Your task to perform on an android device: Open calendar and show me the third week of next month Image 0: 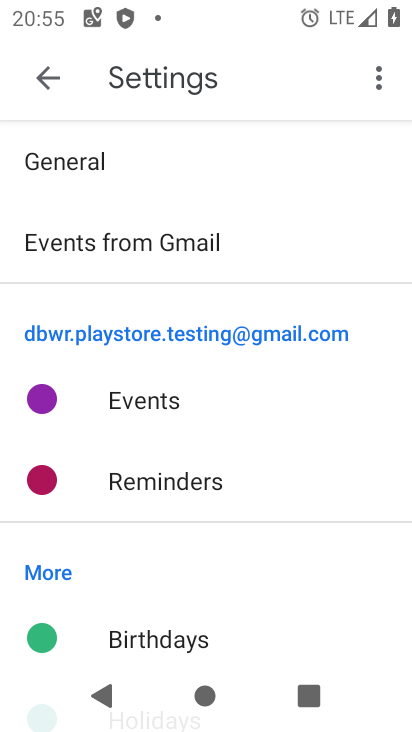
Step 0: press home button
Your task to perform on an android device: Open calendar and show me the third week of next month Image 1: 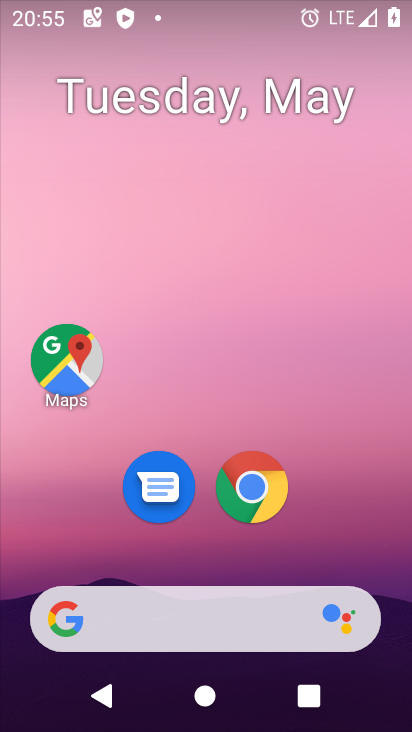
Step 1: drag from (326, 525) to (199, 117)
Your task to perform on an android device: Open calendar and show me the third week of next month Image 2: 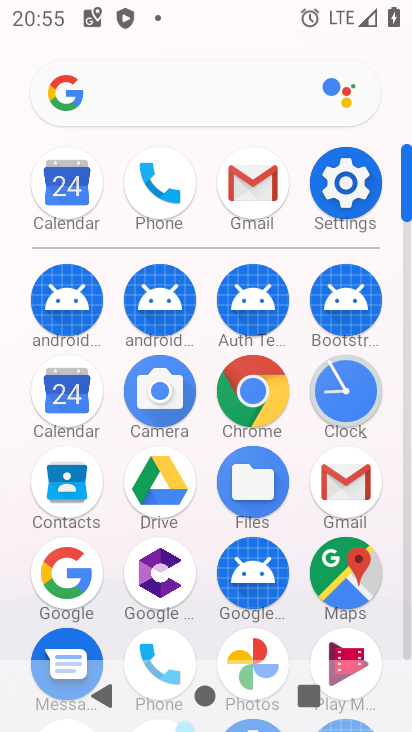
Step 2: click (55, 401)
Your task to perform on an android device: Open calendar and show me the third week of next month Image 3: 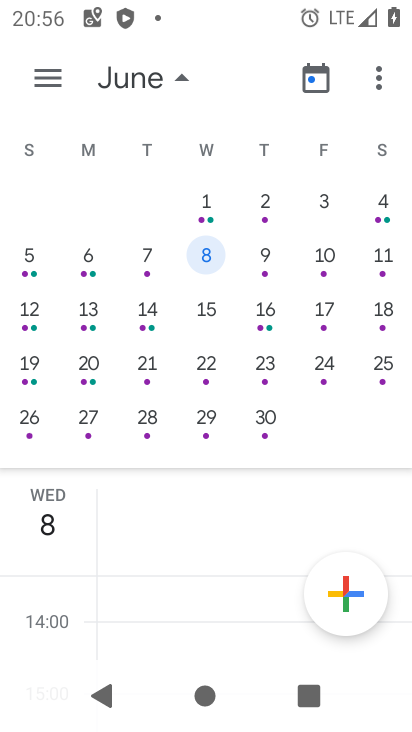
Step 3: click (199, 305)
Your task to perform on an android device: Open calendar and show me the third week of next month Image 4: 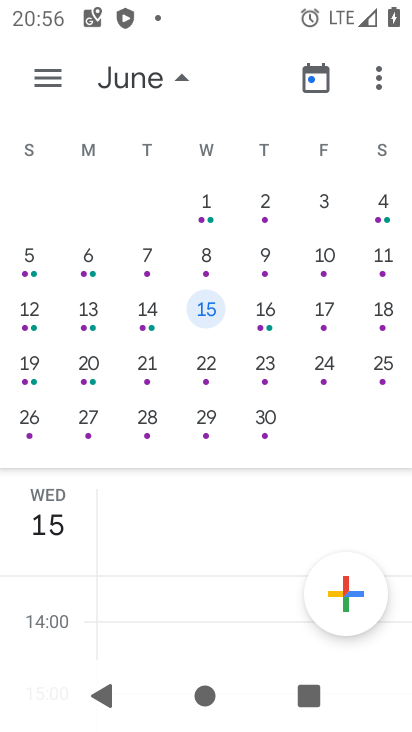
Step 4: click (57, 83)
Your task to perform on an android device: Open calendar and show me the third week of next month Image 5: 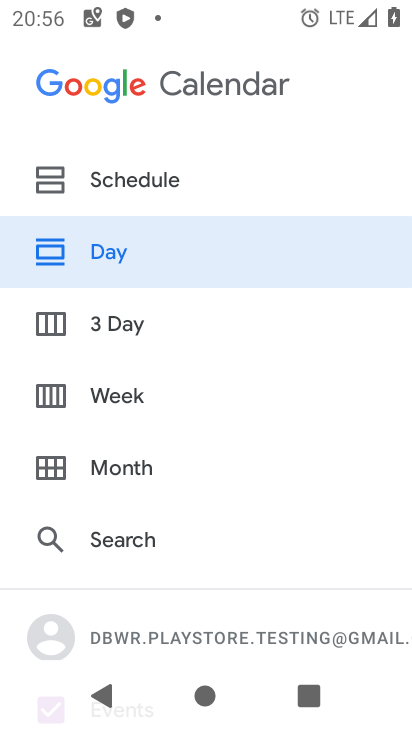
Step 5: click (114, 396)
Your task to perform on an android device: Open calendar and show me the third week of next month Image 6: 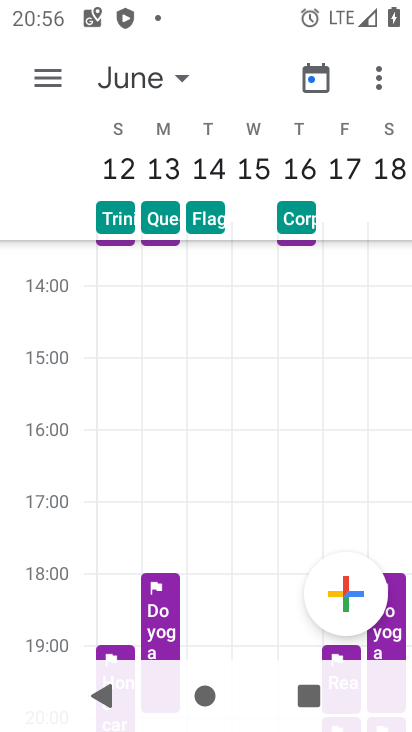
Step 6: click (183, 76)
Your task to perform on an android device: Open calendar and show me the third week of next month Image 7: 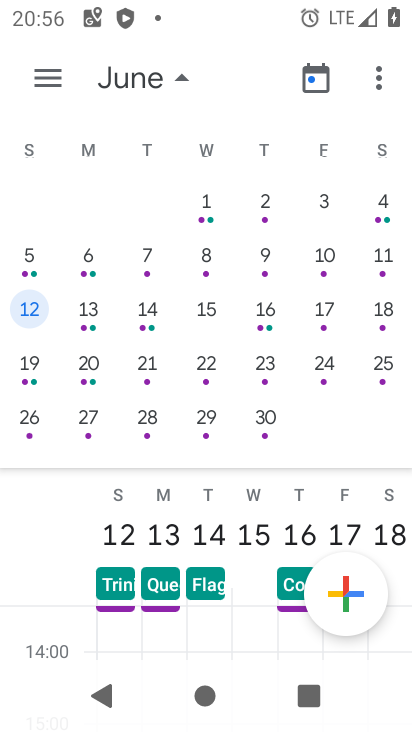
Step 7: click (202, 305)
Your task to perform on an android device: Open calendar and show me the third week of next month Image 8: 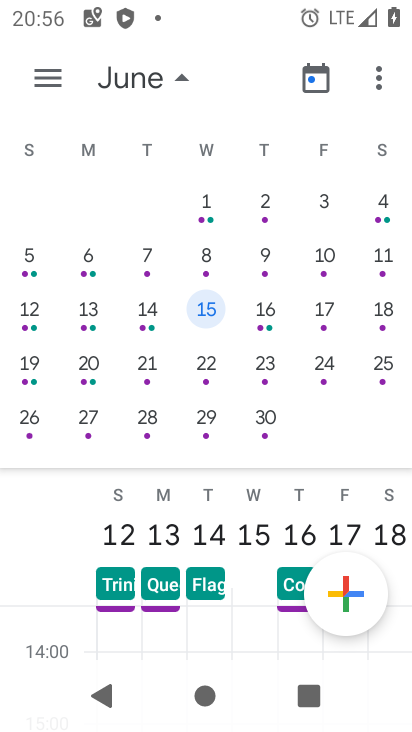
Step 8: task complete